Your task to perform on an android device: turn on priority inbox in the gmail app Image 0: 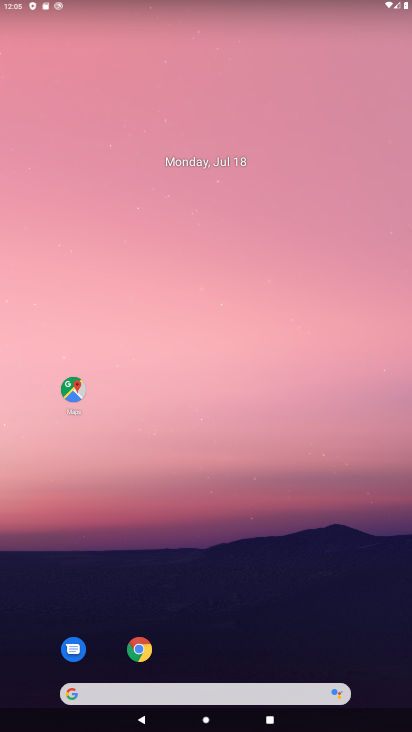
Step 0: drag from (115, 511) to (274, 719)
Your task to perform on an android device: turn on priority inbox in the gmail app Image 1: 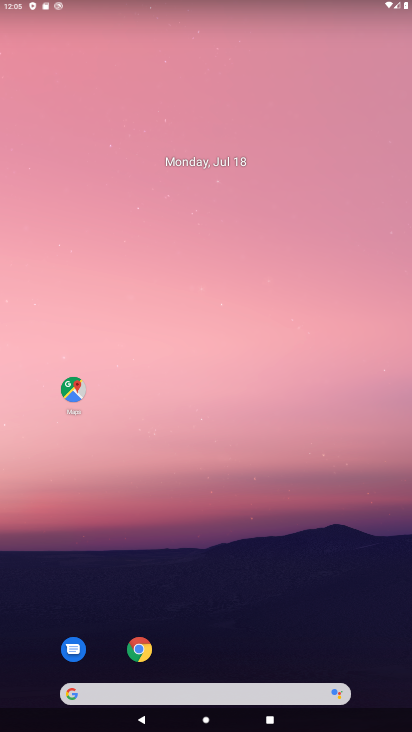
Step 1: drag from (29, 682) to (137, 156)
Your task to perform on an android device: turn on priority inbox in the gmail app Image 2: 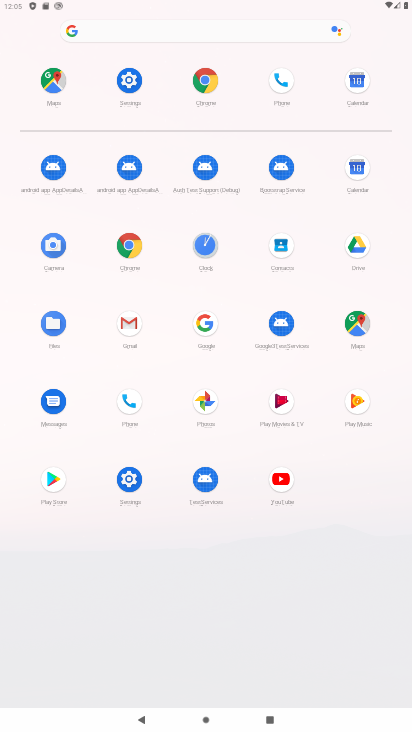
Step 2: click (134, 331)
Your task to perform on an android device: turn on priority inbox in the gmail app Image 3: 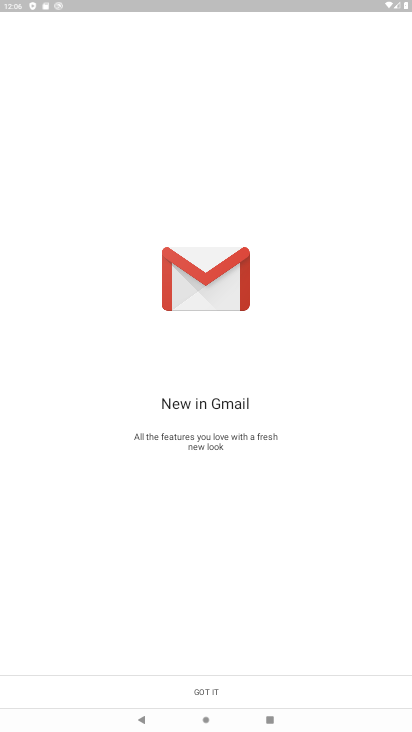
Step 3: click (208, 690)
Your task to perform on an android device: turn on priority inbox in the gmail app Image 4: 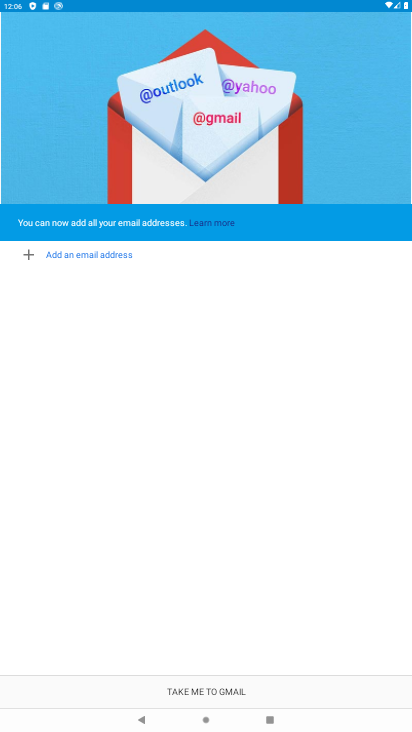
Step 4: click (209, 682)
Your task to perform on an android device: turn on priority inbox in the gmail app Image 5: 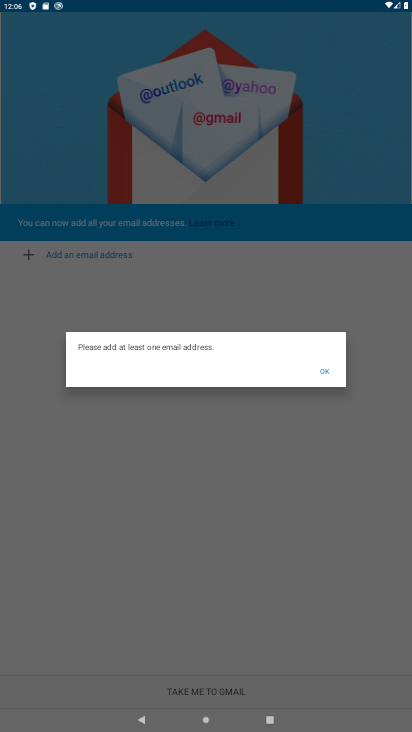
Step 5: click (231, 690)
Your task to perform on an android device: turn on priority inbox in the gmail app Image 6: 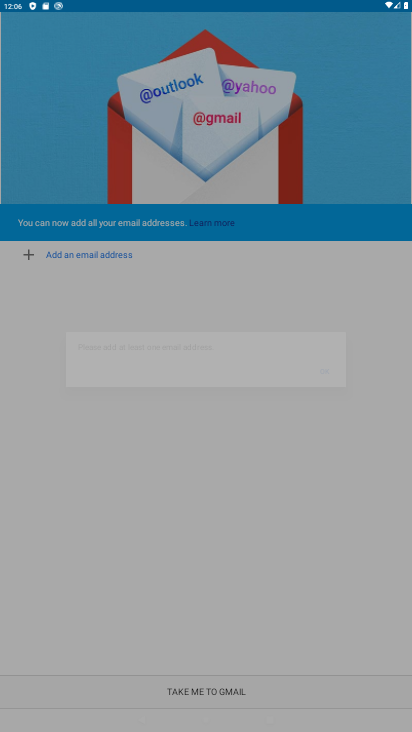
Step 6: click (228, 694)
Your task to perform on an android device: turn on priority inbox in the gmail app Image 7: 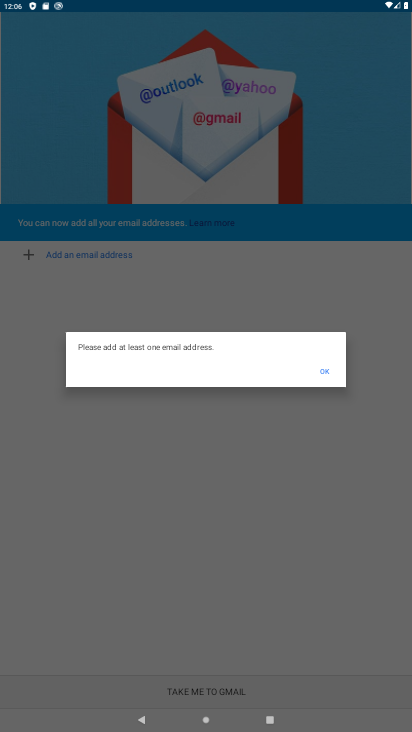
Step 7: task complete